Your task to perform on an android device: turn off translation in the chrome app Image 0: 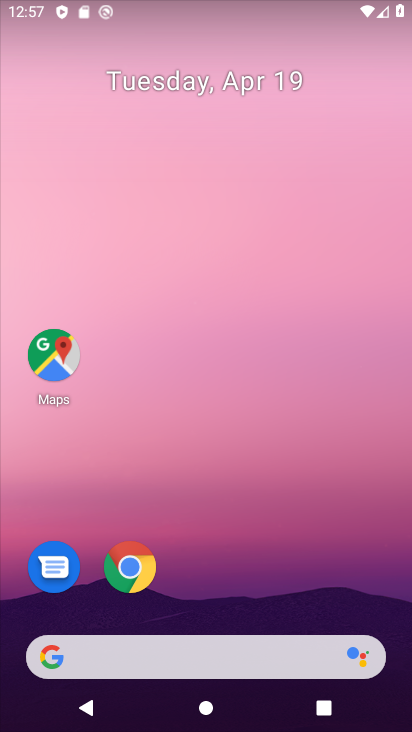
Step 0: click (125, 566)
Your task to perform on an android device: turn off translation in the chrome app Image 1: 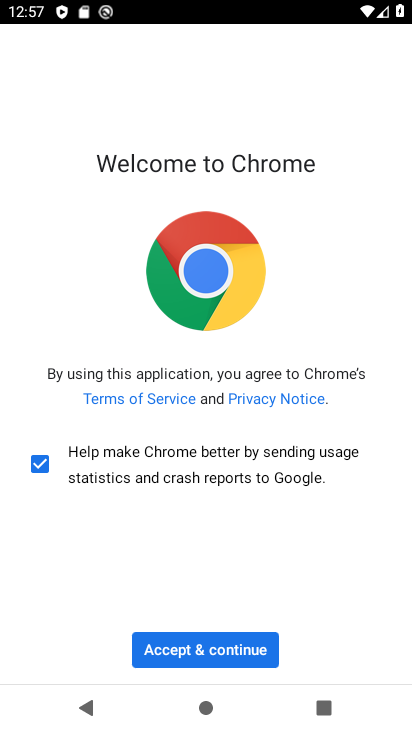
Step 1: click (199, 643)
Your task to perform on an android device: turn off translation in the chrome app Image 2: 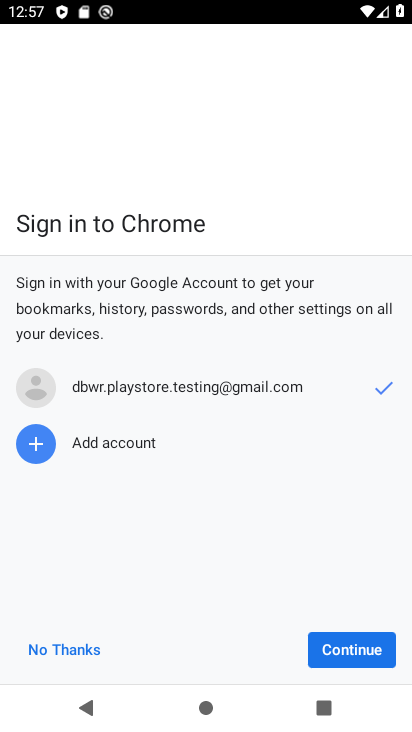
Step 2: click (338, 648)
Your task to perform on an android device: turn off translation in the chrome app Image 3: 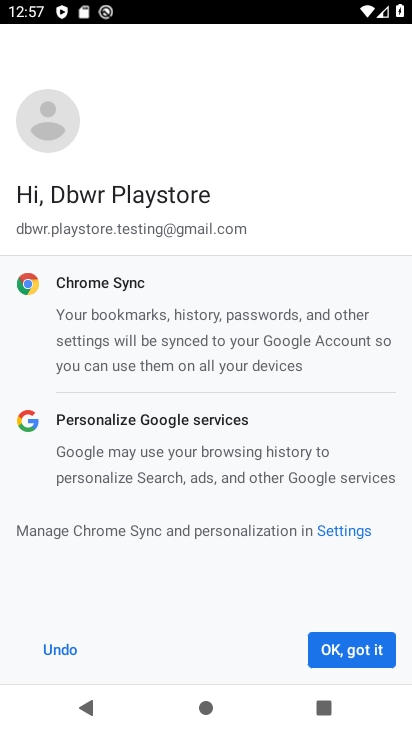
Step 3: click (338, 648)
Your task to perform on an android device: turn off translation in the chrome app Image 4: 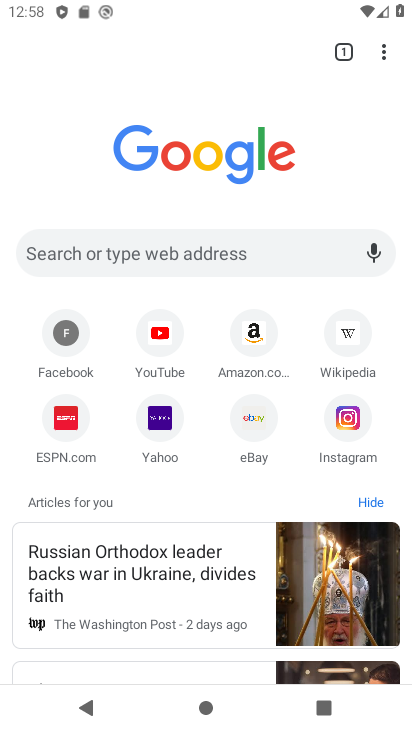
Step 4: click (380, 56)
Your task to perform on an android device: turn off translation in the chrome app Image 5: 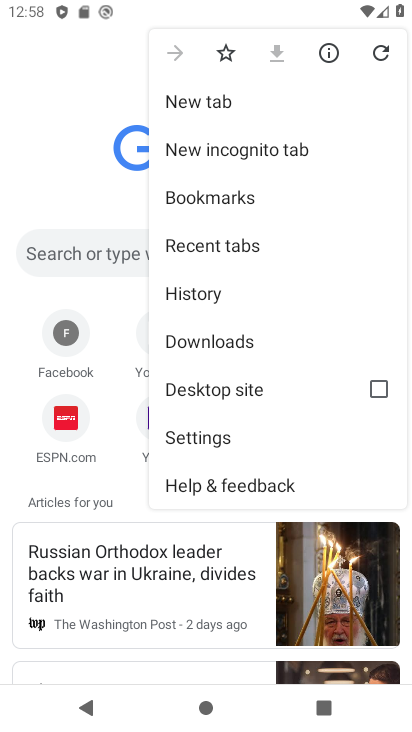
Step 5: click (207, 439)
Your task to perform on an android device: turn off translation in the chrome app Image 6: 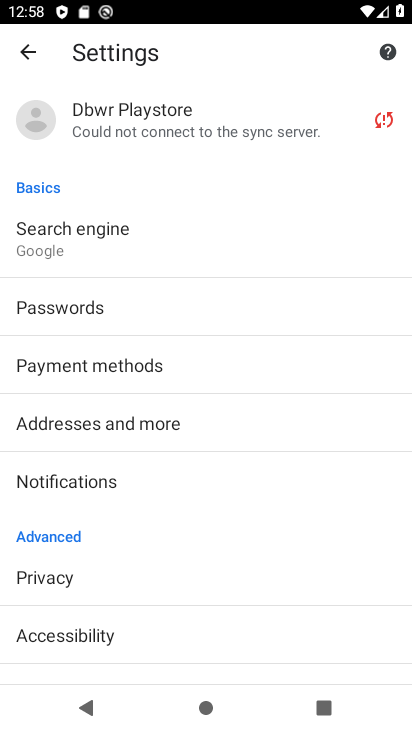
Step 6: drag from (230, 583) to (298, 239)
Your task to perform on an android device: turn off translation in the chrome app Image 7: 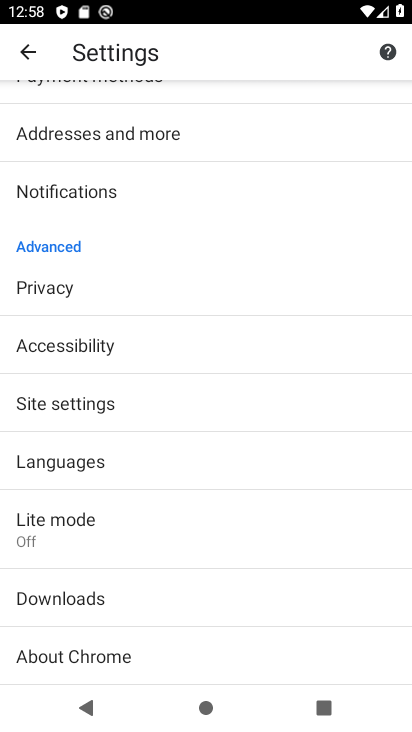
Step 7: click (75, 455)
Your task to perform on an android device: turn off translation in the chrome app Image 8: 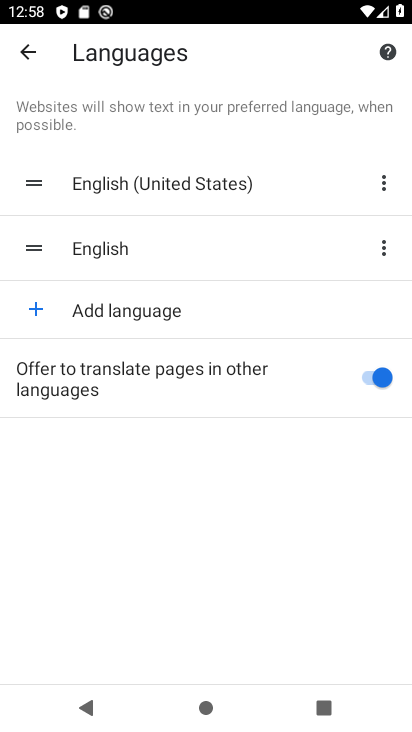
Step 8: click (361, 371)
Your task to perform on an android device: turn off translation in the chrome app Image 9: 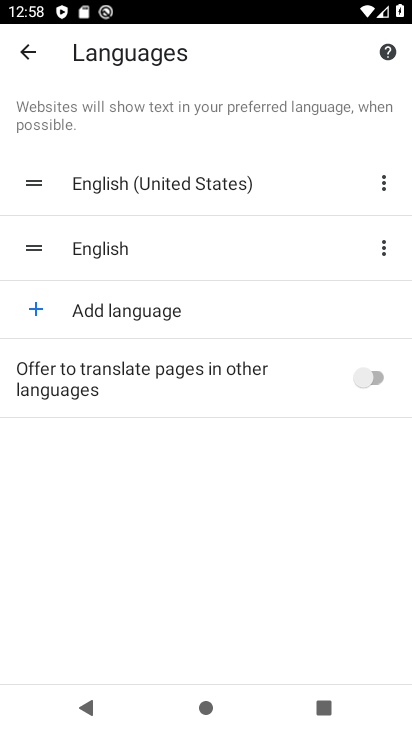
Step 9: task complete